Your task to perform on an android device: clear all cookies in the chrome app Image 0: 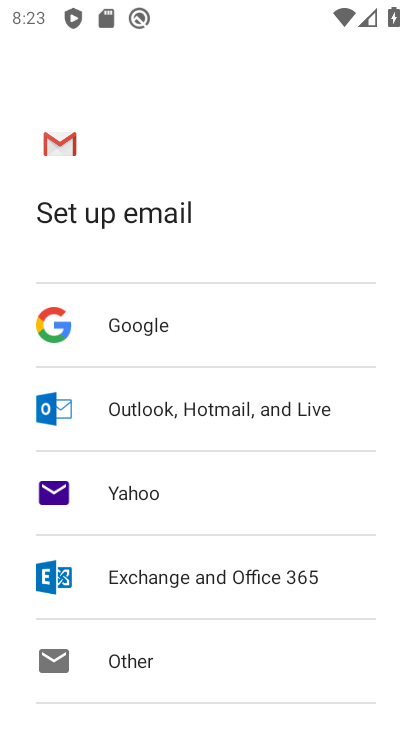
Step 0: press home button
Your task to perform on an android device: clear all cookies in the chrome app Image 1: 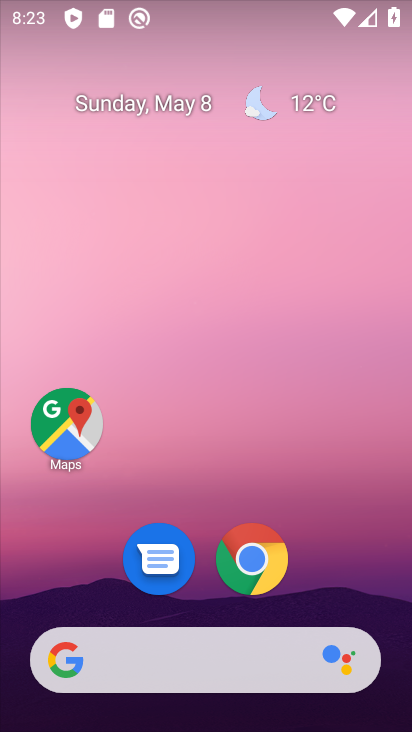
Step 1: click (251, 562)
Your task to perform on an android device: clear all cookies in the chrome app Image 2: 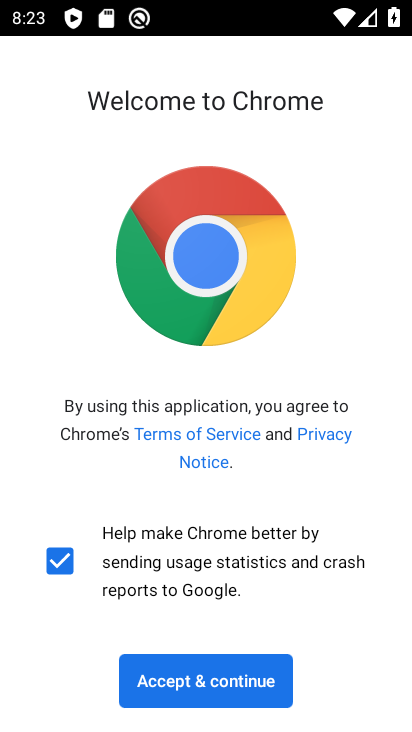
Step 2: click (195, 693)
Your task to perform on an android device: clear all cookies in the chrome app Image 3: 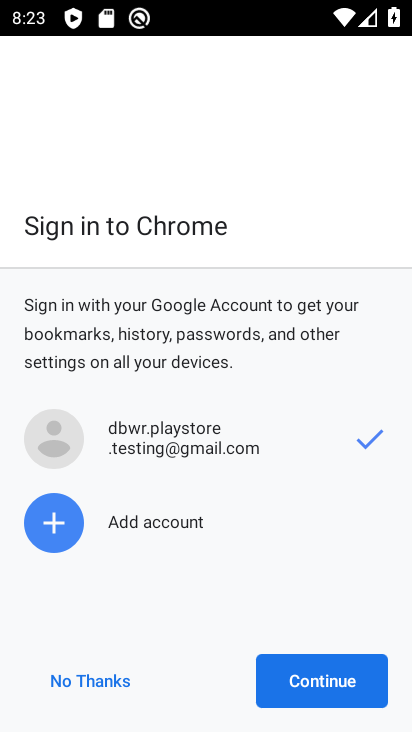
Step 3: click (307, 688)
Your task to perform on an android device: clear all cookies in the chrome app Image 4: 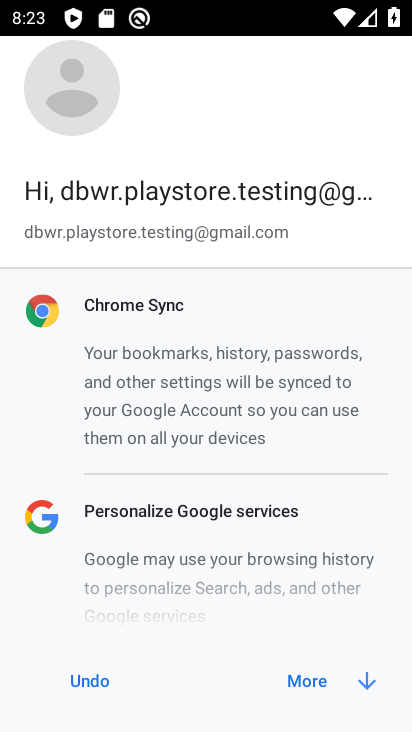
Step 4: click (305, 688)
Your task to perform on an android device: clear all cookies in the chrome app Image 5: 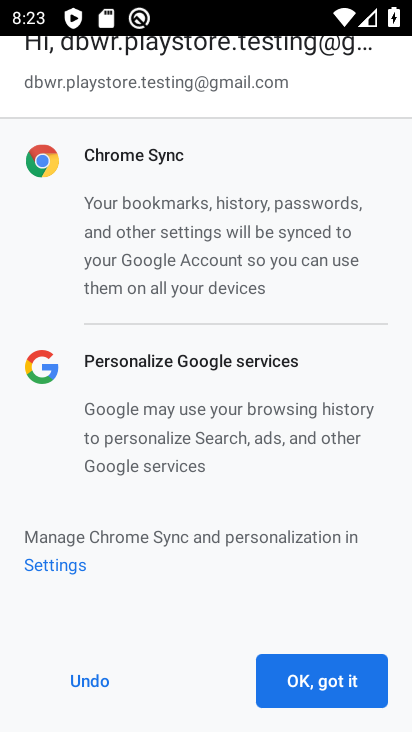
Step 5: click (305, 688)
Your task to perform on an android device: clear all cookies in the chrome app Image 6: 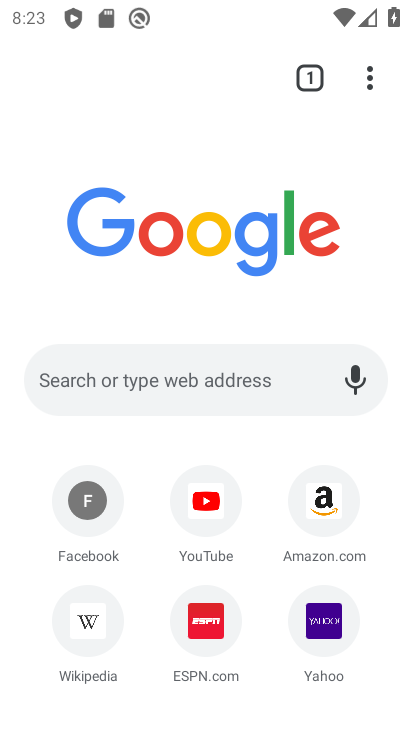
Step 6: click (367, 72)
Your task to perform on an android device: clear all cookies in the chrome app Image 7: 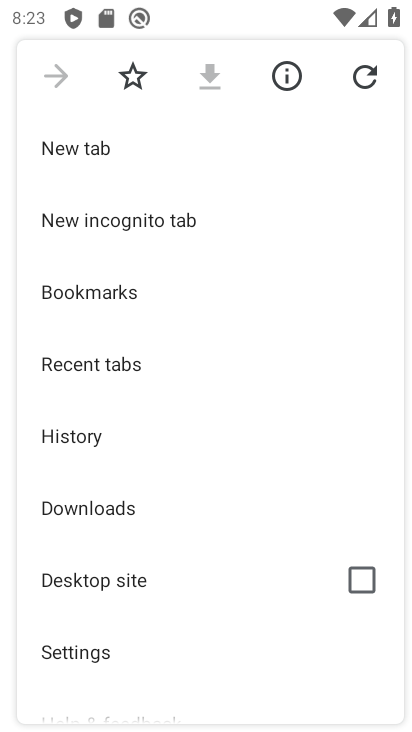
Step 7: click (132, 641)
Your task to perform on an android device: clear all cookies in the chrome app Image 8: 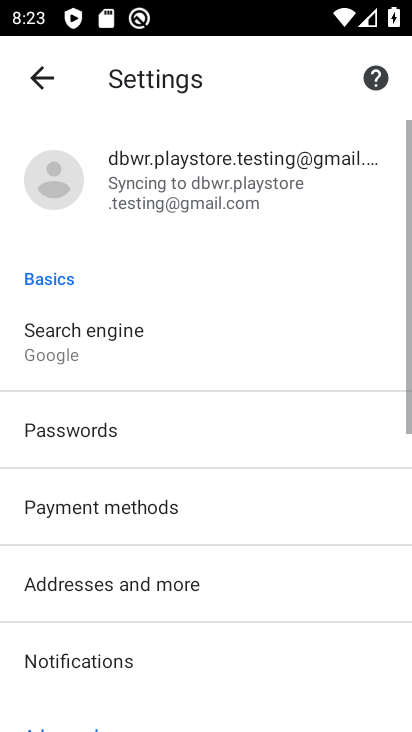
Step 8: drag from (132, 565) to (171, 148)
Your task to perform on an android device: clear all cookies in the chrome app Image 9: 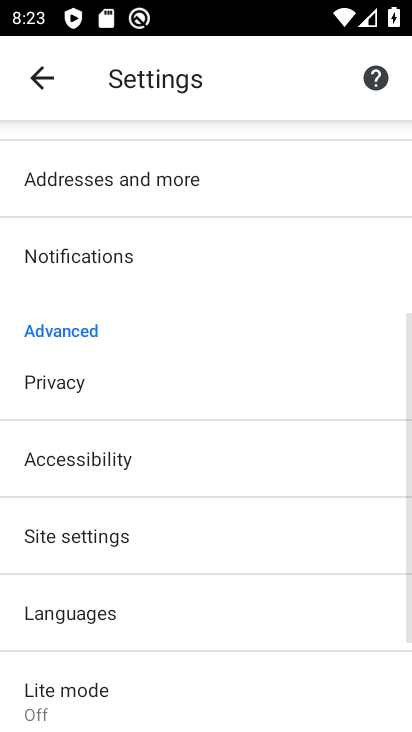
Step 9: click (109, 396)
Your task to perform on an android device: clear all cookies in the chrome app Image 10: 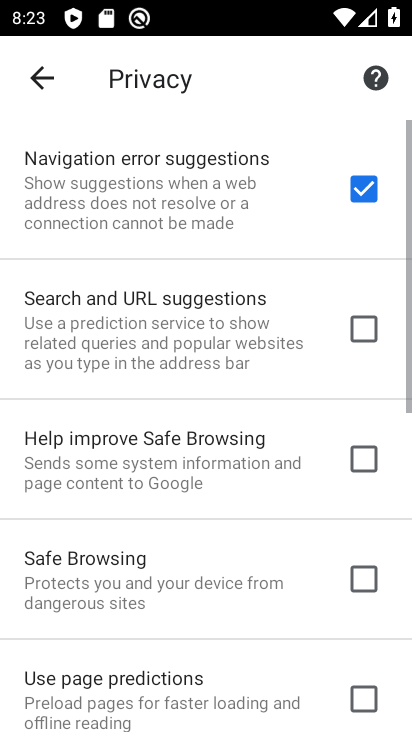
Step 10: drag from (222, 573) to (275, 32)
Your task to perform on an android device: clear all cookies in the chrome app Image 11: 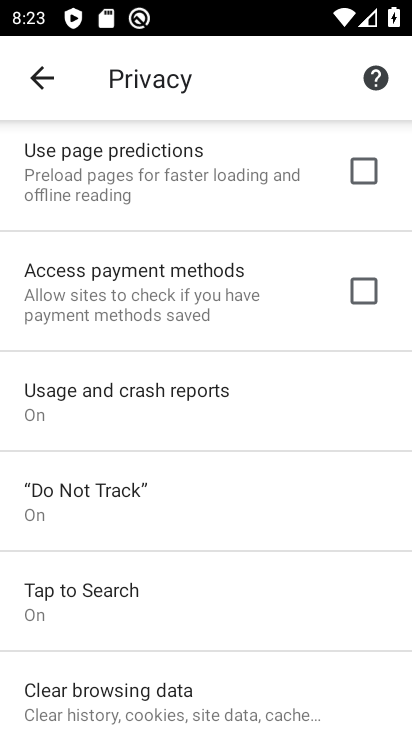
Step 11: click (139, 701)
Your task to perform on an android device: clear all cookies in the chrome app Image 12: 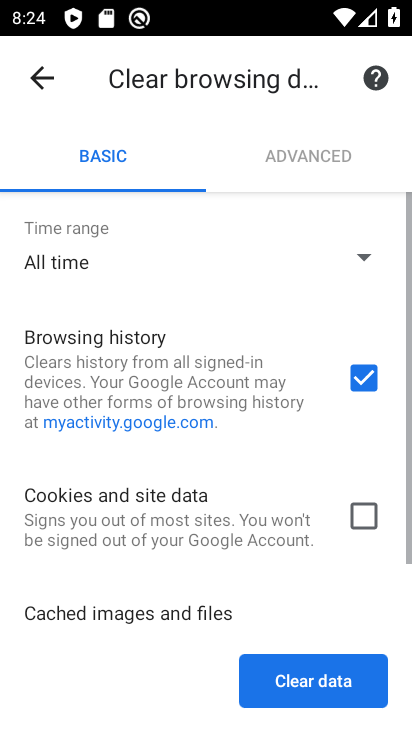
Step 12: click (366, 514)
Your task to perform on an android device: clear all cookies in the chrome app Image 13: 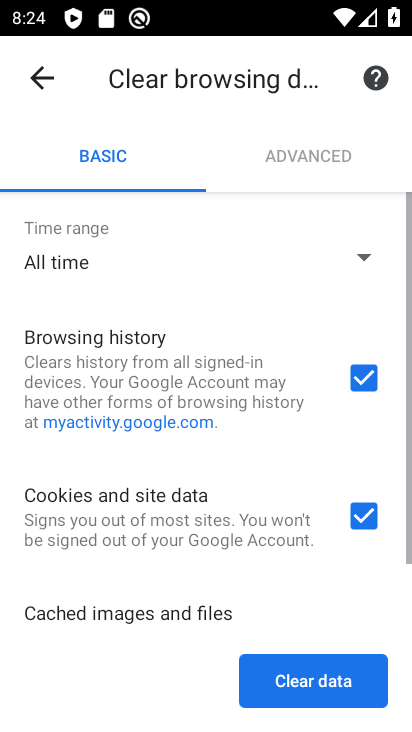
Step 13: click (359, 386)
Your task to perform on an android device: clear all cookies in the chrome app Image 14: 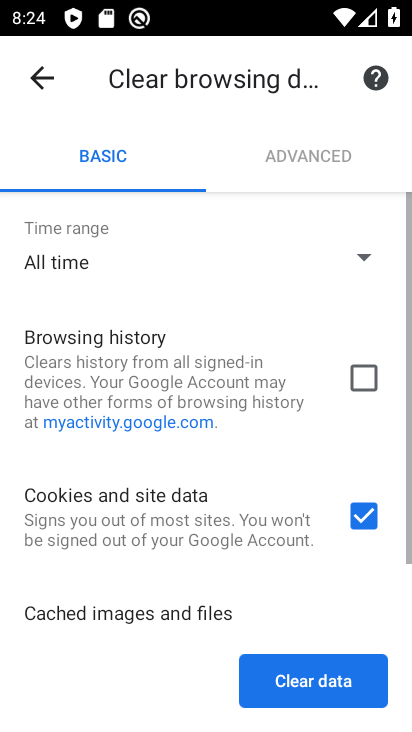
Step 14: click (304, 691)
Your task to perform on an android device: clear all cookies in the chrome app Image 15: 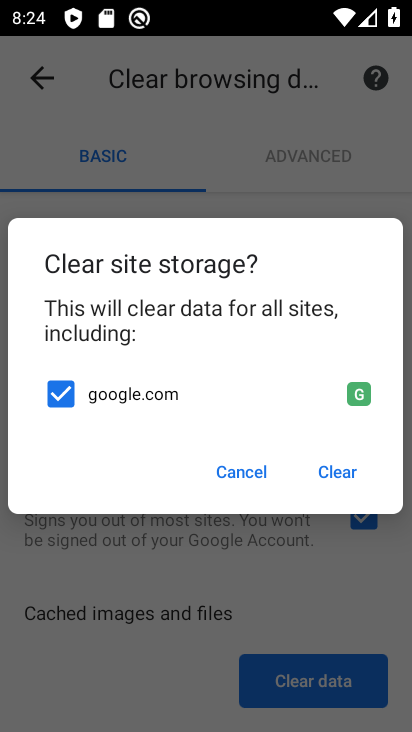
Step 15: click (339, 470)
Your task to perform on an android device: clear all cookies in the chrome app Image 16: 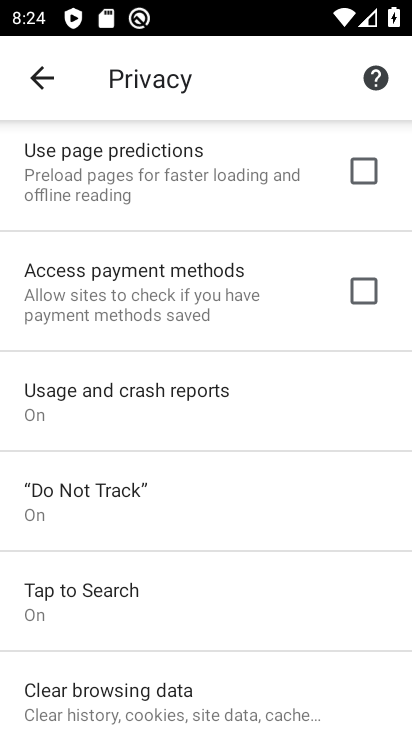
Step 16: task complete